Your task to perform on an android device: What's on my calendar tomorrow? Image 0: 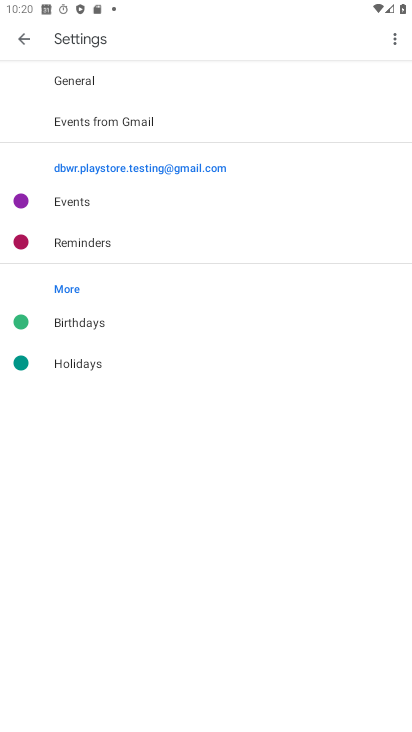
Step 0: drag from (208, 638) to (235, 297)
Your task to perform on an android device: What's on my calendar tomorrow? Image 1: 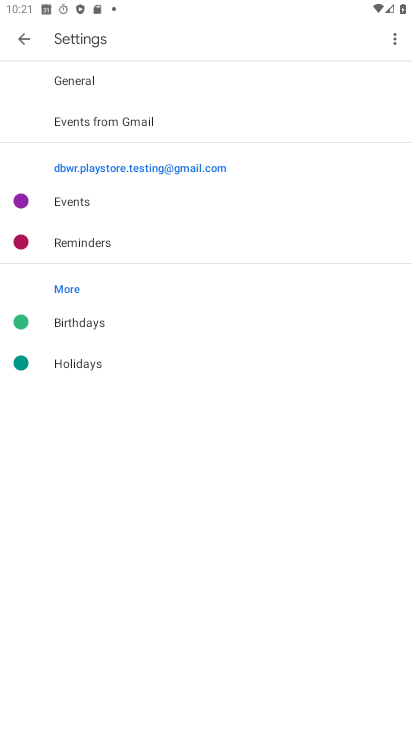
Step 1: drag from (131, 558) to (149, 84)
Your task to perform on an android device: What's on my calendar tomorrow? Image 2: 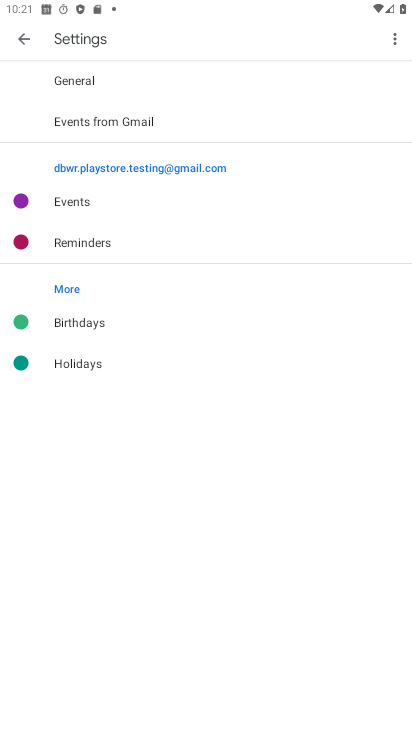
Step 2: press home button
Your task to perform on an android device: What's on my calendar tomorrow? Image 3: 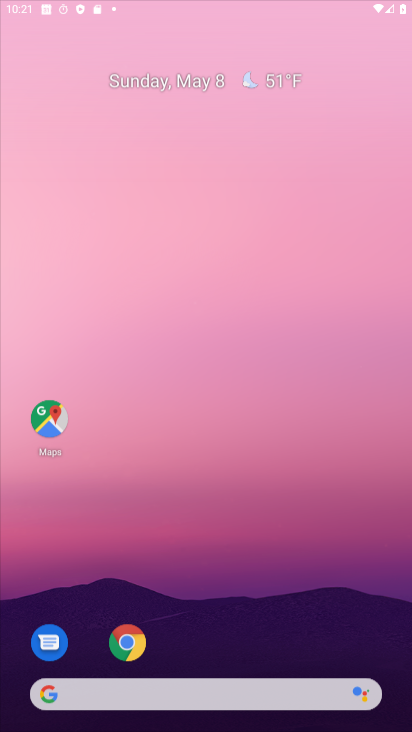
Step 3: drag from (164, 690) to (196, 120)
Your task to perform on an android device: What's on my calendar tomorrow? Image 4: 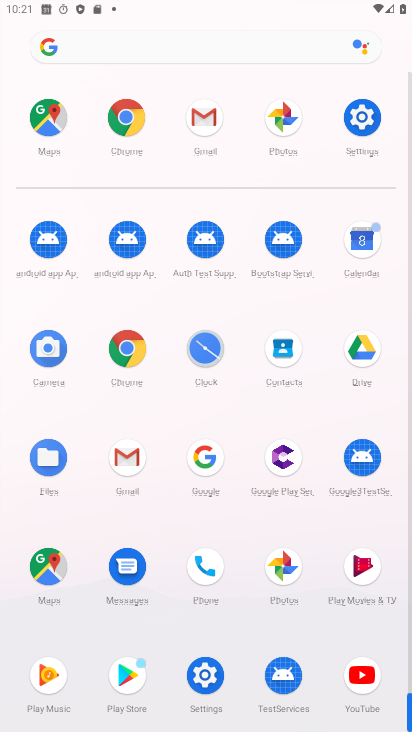
Step 4: click (354, 242)
Your task to perform on an android device: What's on my calendar tomorrow? Image 5: 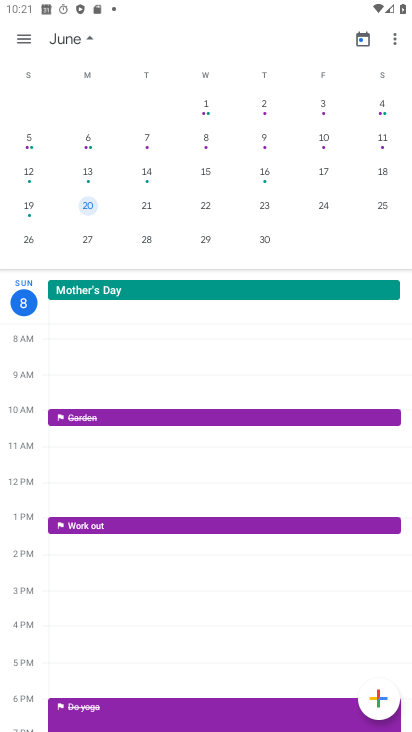
Step 5: click (58, 39)
Your task to perform on an android device: What's on my calendar tomorrow? Image 6: 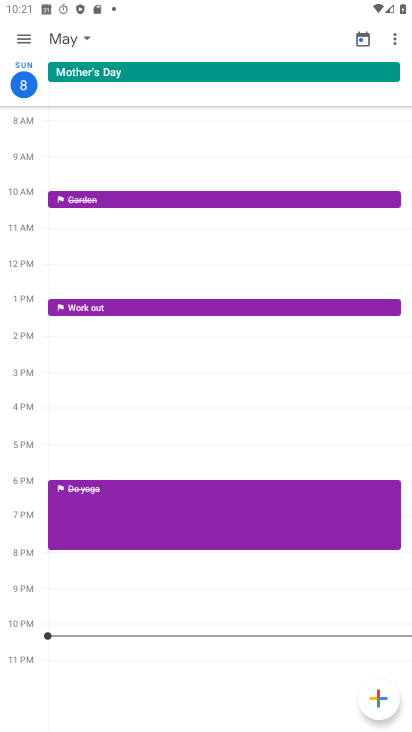
Step 6: click (72, 32)
Your task to perform on an android device: What's on my calendar tomorrow? Image 7: 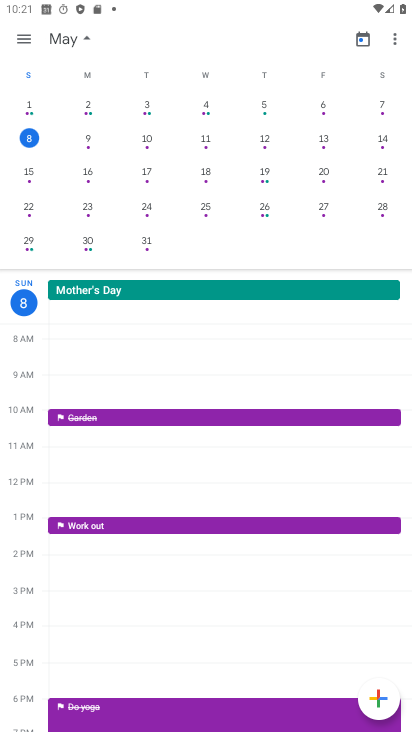
Step 7: drag from (46, 146) to (411, 172)
Your task to perform on an android device: What's on my calendar tomorrow? Image 8: 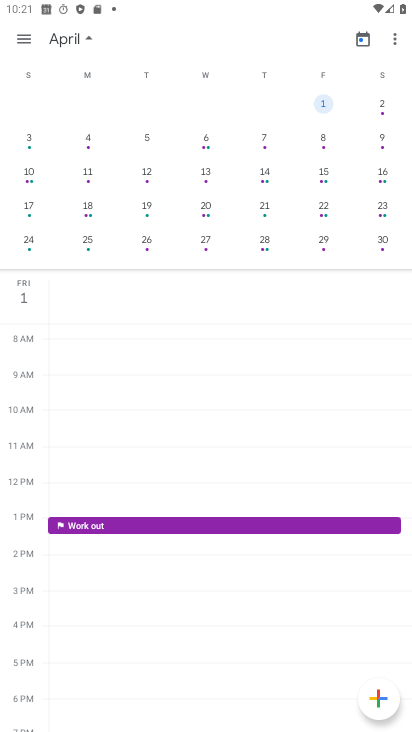
Step 8: drag from (347, 169) to (10, 173)
Your task to perform on an android device: What's on my calendar tomorrow? Image 9: 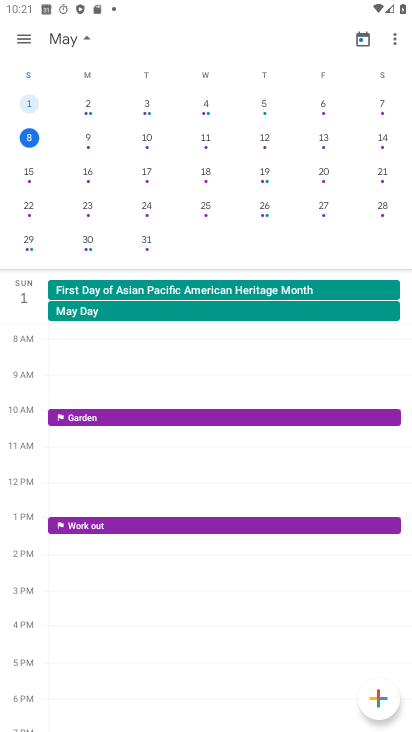
Step 9: click (26, 138)
Your task to perform on an android device: What's on my calendar tomorrow? Image 10: 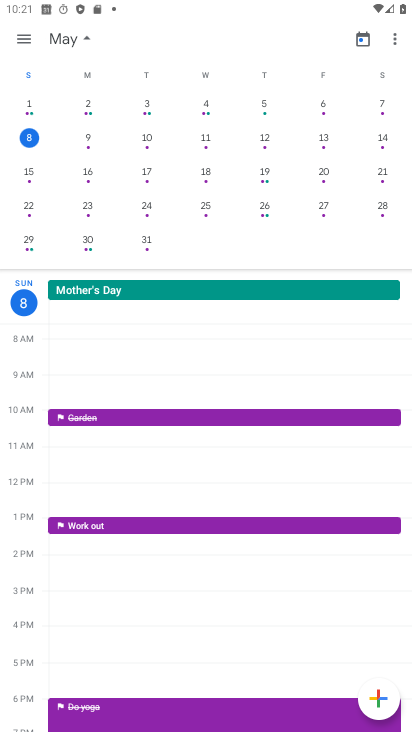
Step 10: task complete